Your task to perform on an android device: Is it going to rain tomorrow? Image 0: 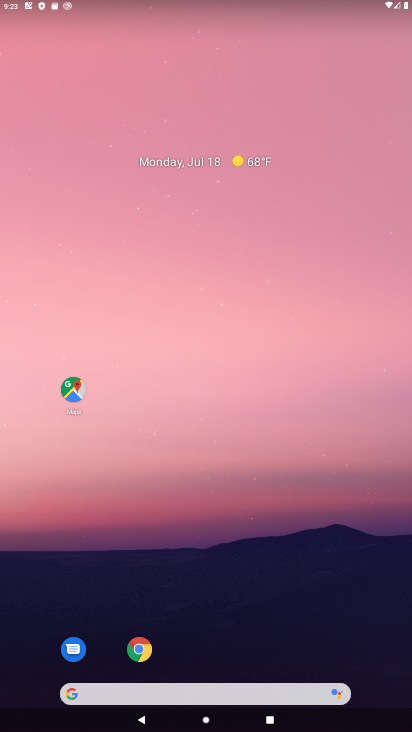
Step 0: click (157, 691)
Your task to perform on an android device: Is it going to rain tomorrow? Image 1: 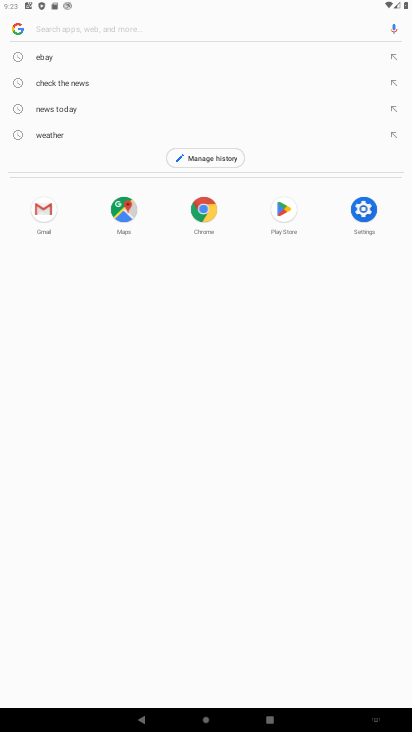
Step 1: type "Is it going to rain tomorrow?"
Your task to perform on an android device: Is it going to rain tomorrow? Image 2: 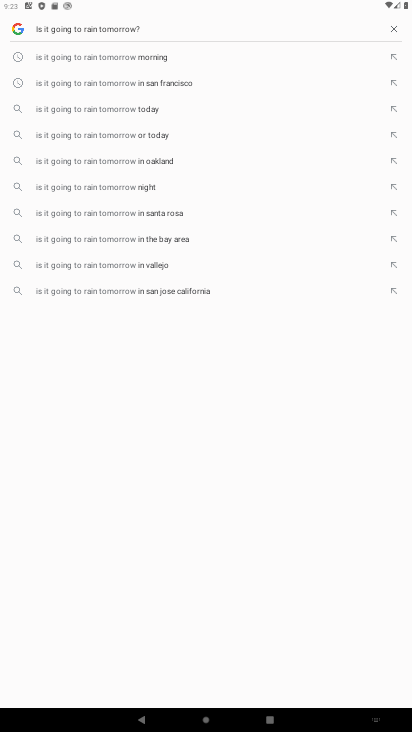
Step 2: press enter
Your task to perform on an android device: Is it going to rain tomorrow? Image 3: 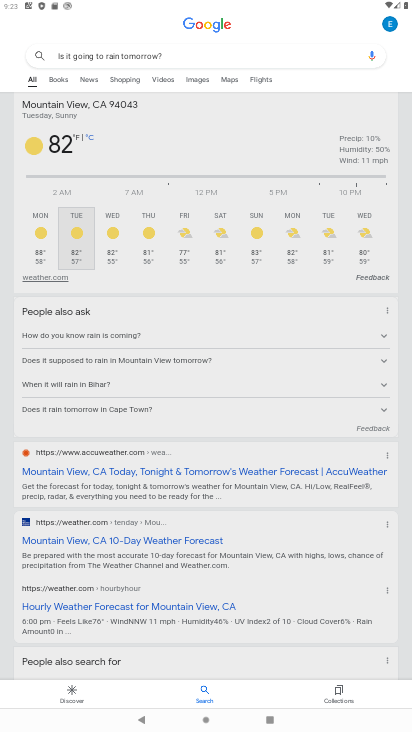
Step 3: task complete